Your task to perform on an android device: Open calendar and show me the first week of next month Image 0: 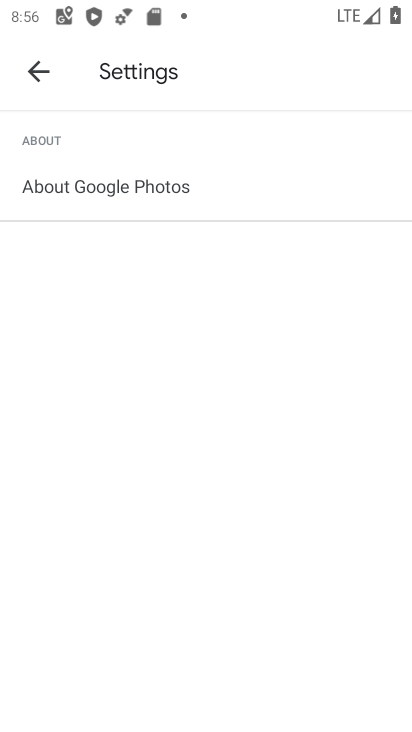
Step 0: press home button
Your task to perform on an android device: Open calendar and show me the first week of next month Image 1: 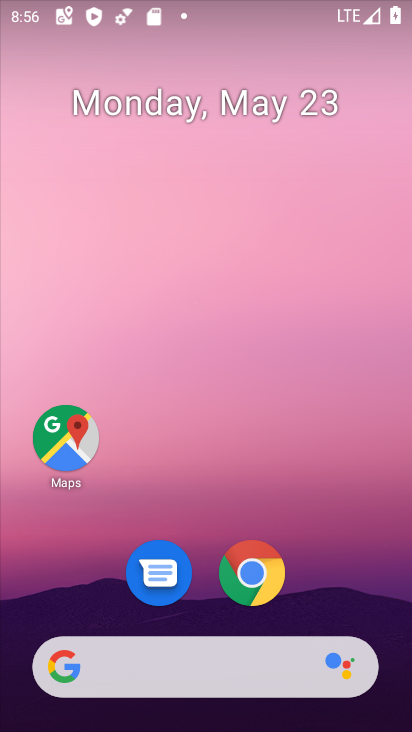
Step 1: drag from (201, 503) to (211, 56)
Your task to perform on an android device: Open calendar and show me the first week of next month Image 2: 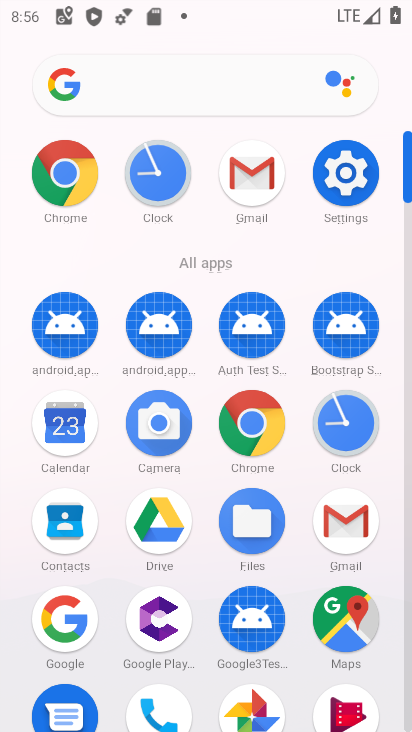
Step 2: click (52, 412)
Your task to perform on an android device: Open calendar and show me the first week of next month Image 3: 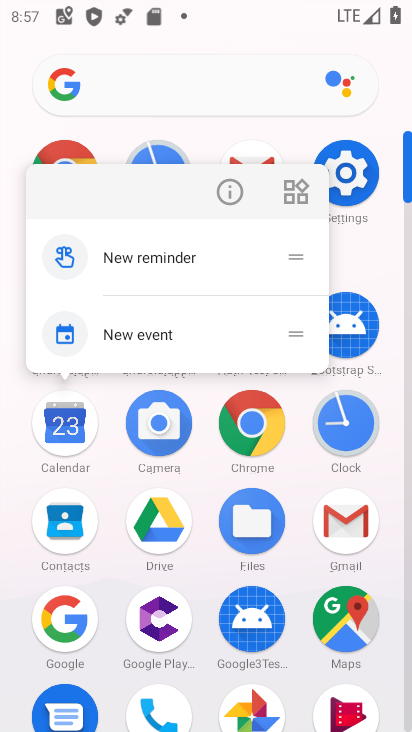
Step 3: click (57, 420)
Your task to perform on an android device: Open calendar and show me the first week of next month Image 4: 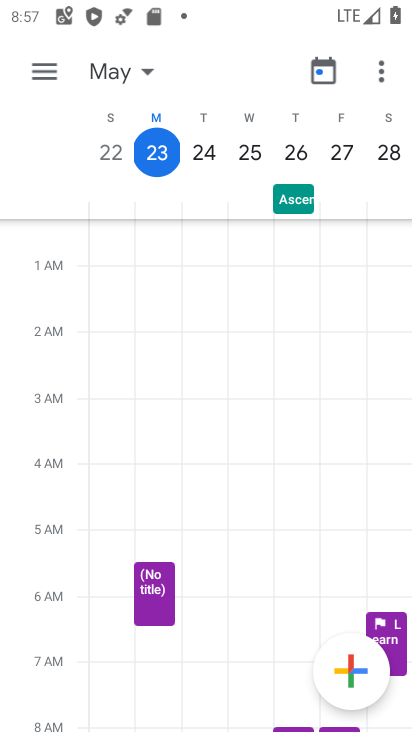
Step 4: task complete